Your task to perform on an android device: toggle javascript in the chrome app Image 0: 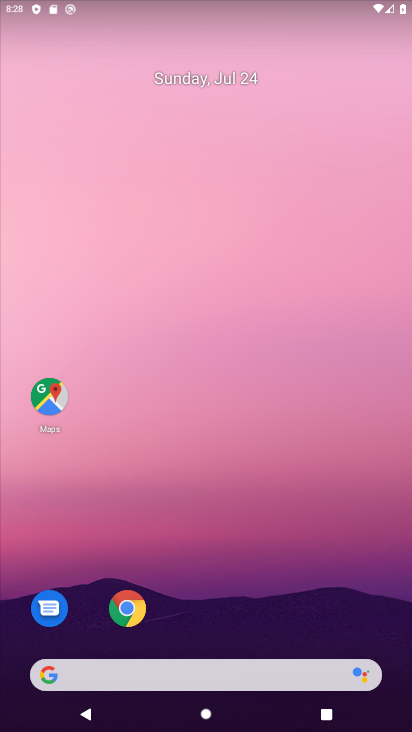
Step 0: drag from (245, 602) to (194, 1)
Your task to perform on an android device: toggle javascript in the chrome app Image 1: 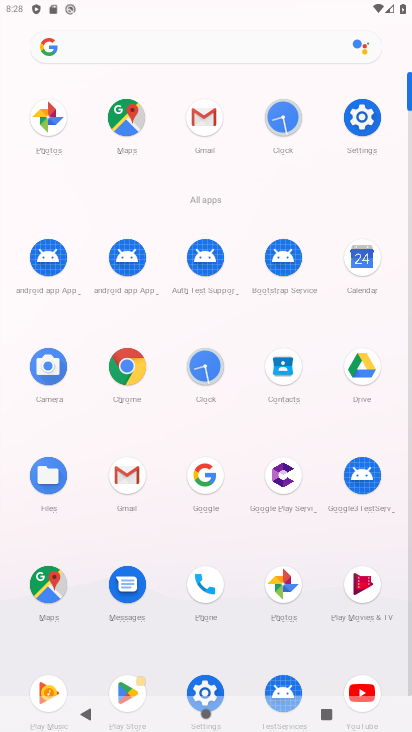
Step 1: click (130, 362)
Your task to perform on an android device: toggle javascript in the chrome app Image 2: 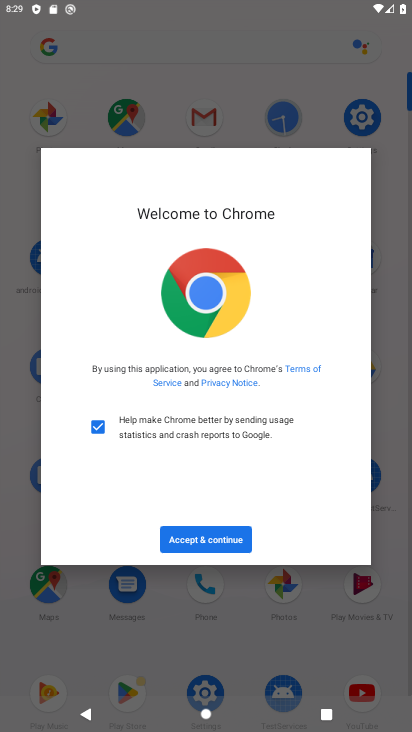
Step 2: click (197, 538)
Your task to perform on an android device: toggle javascript in the chrome app Image 3: 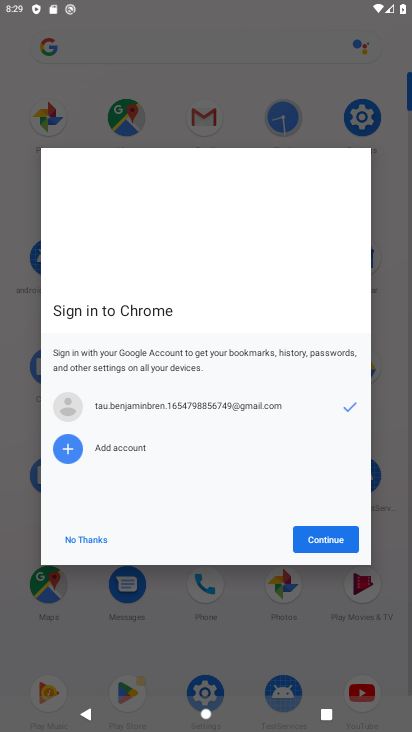
Step 3: click (318, 540)
Your task to perform on an android device: toggle javascript in the chrome app Image 4: 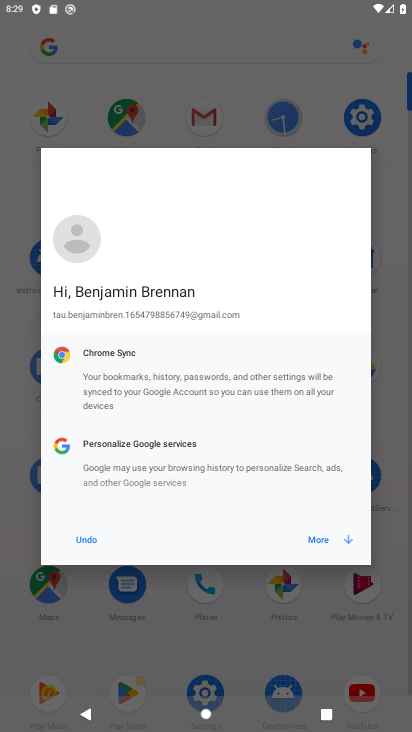
Step 4: click (338, 536)
Your task to perform on an android device: toggle javascript in the chrome app Image 5: 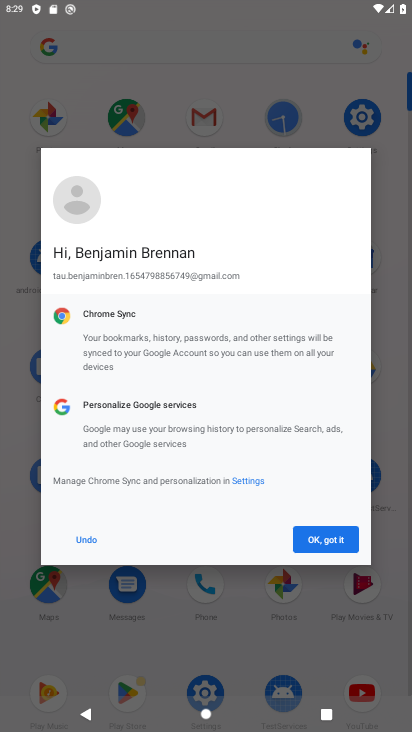
Step 5: click (335, 543)
Your task to perform on an android device: toggle javascript in the chrome app Image 6: 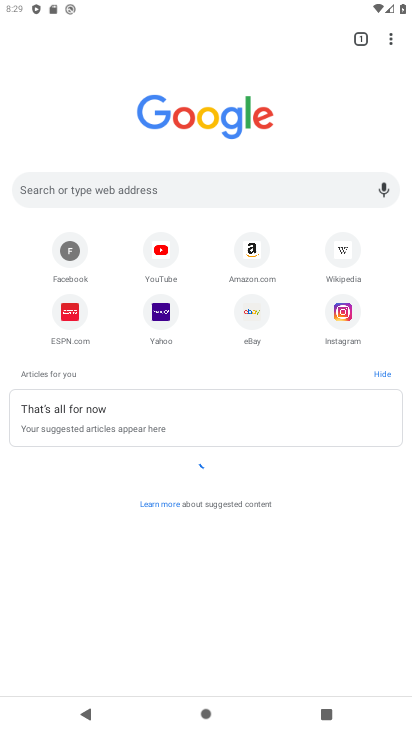
Step 6: click (393, 45)
Your task to perform on an android device: toggle javascript in the chrome app Image 7: 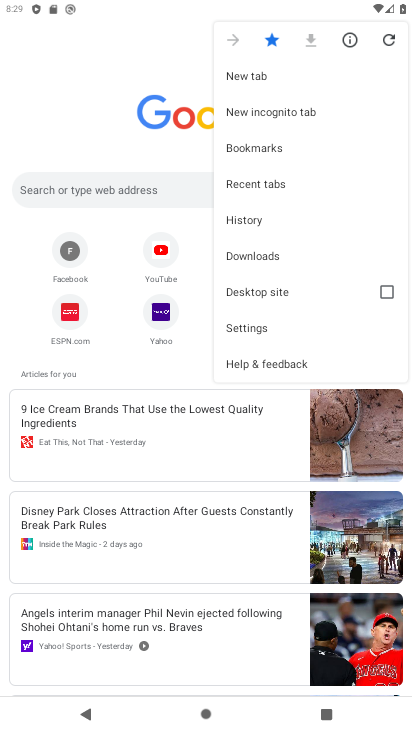
Step 7: click (256, 330)
Your task to perform on an android device: toggle javascript in the chrome app Image 8: 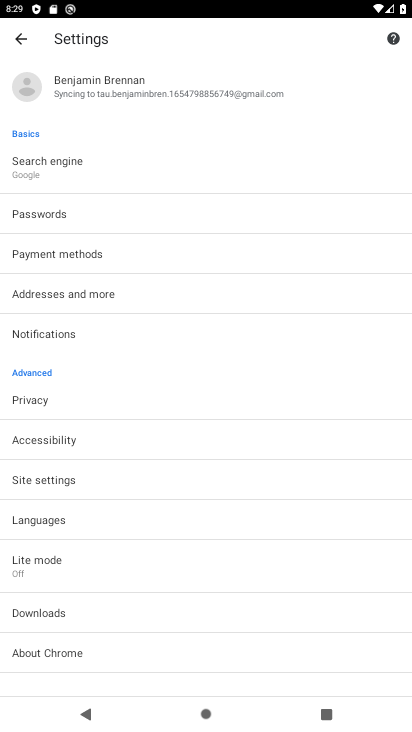
Step 8: click (62, 482)
Your task to perform on an android device: toggle javascript in the chrome app Image 9: 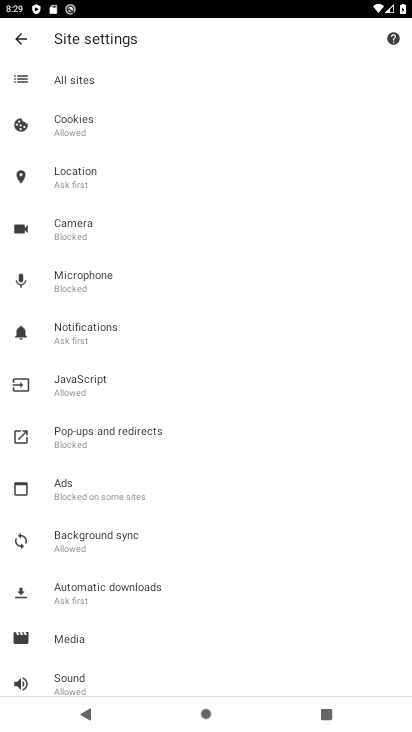
Step 9: click (107, 386)
Your task to perform on an android device: toggle javascript in the chrome app Image 10: 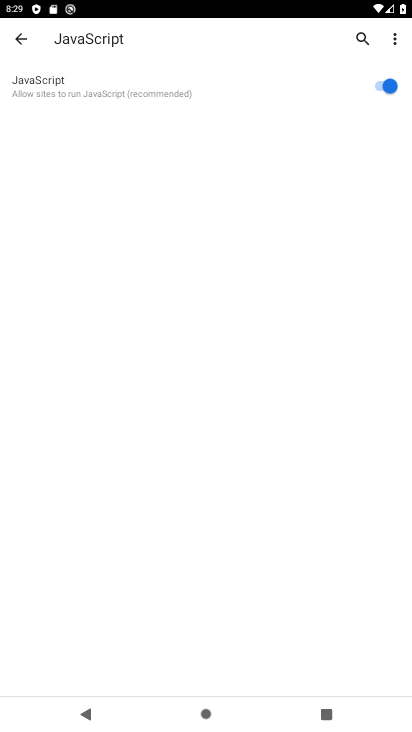
Step 10: click (363, 82)
Your task to perform on an android device: toggle javascript in the chrome app Image 11: 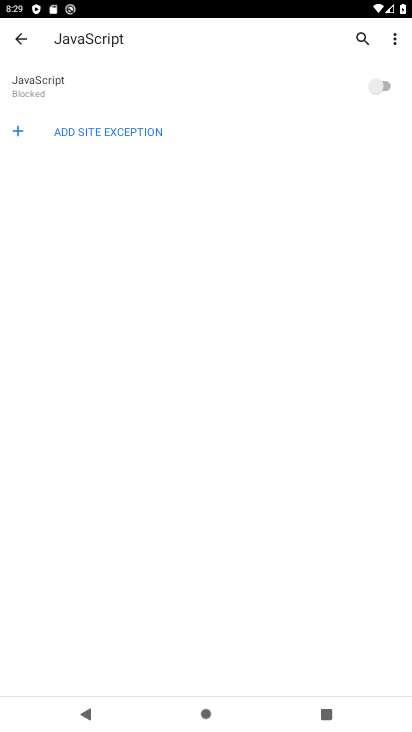
Step 11: task complete